Your task to perform on an android device: open app "Microsoft Outlook" (install if not already installed) Image 0: 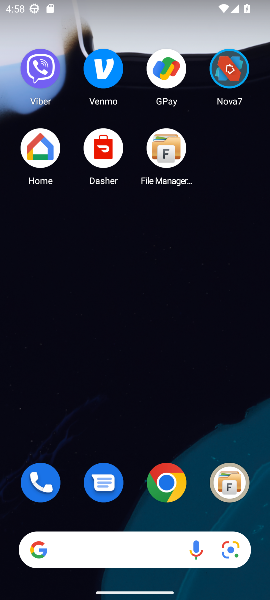
Step 0: press home button
Your task to perform on an android device: open app "Microsoft Outlook" (install if not already installed) Image 1: 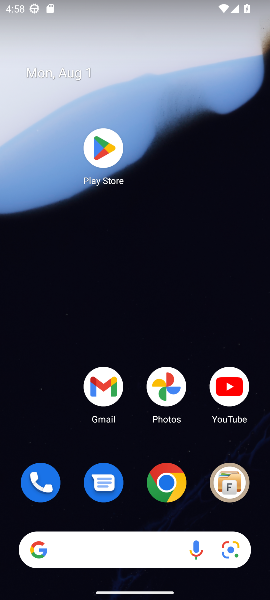
Step 1: click (109, 147)
Your task to perform on an android device: open app "Microsoft Outlook" (install if not already installed) Image 2: 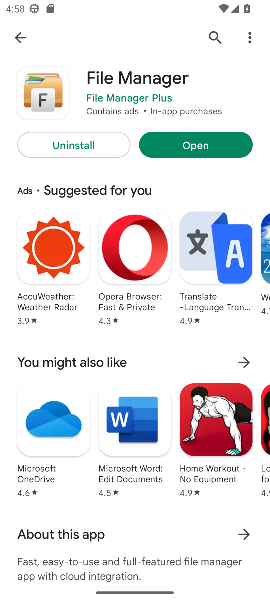
Step 2: click (208, 36)
Your task to perform on an android device: open app "Microsoft Outlook" (install if not already installed) Image 3: 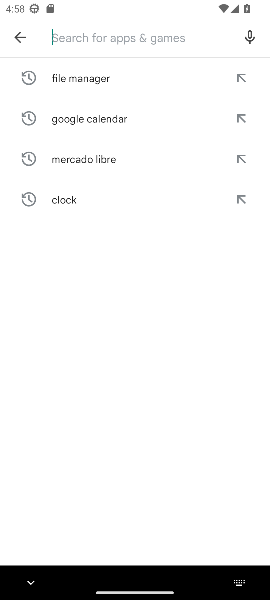
Step 3: click (102, 31)
Your task to perform on an android device: open app "Microsoft Outlook" (install if not already installed) Image 4: 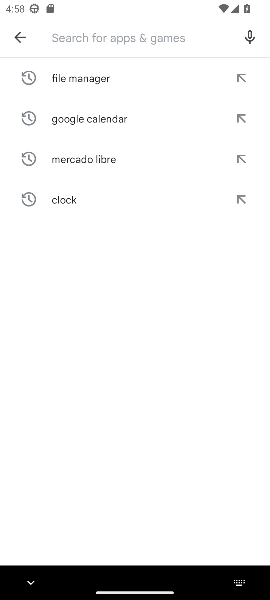
Step 4: type "Microsoft Outlook"
Your task to perform on an android device: open app "Microsoft Outlook" (install if not already installed) Image 5: 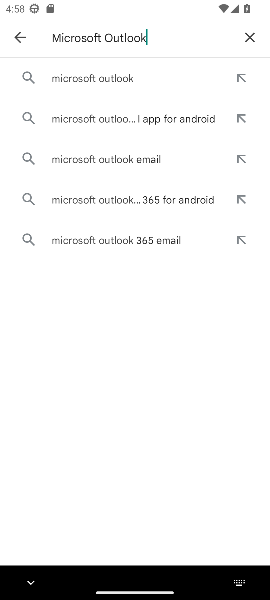
Step 5: click (99, 80)
Your task to perform on an android device: open app "Microsoft Outlook" (install if not already installed) Image 6: 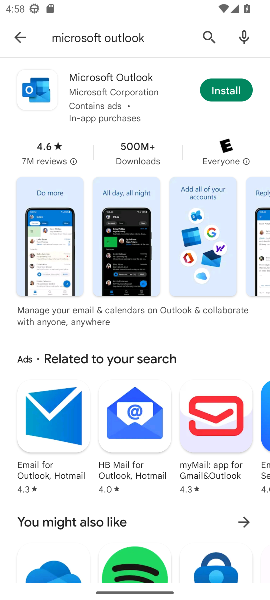
Step 6: click (231, 92)
Your task to perform on an android device: open app "Microsoft Outlook" (install if not already installed) Image 7: 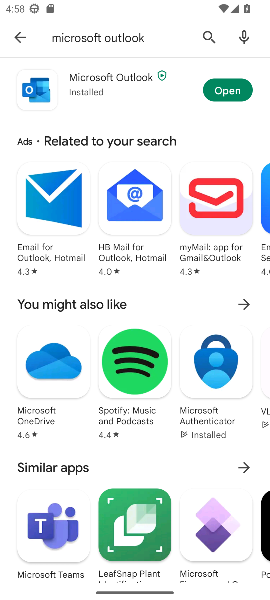
Step 7: click (232, 91)
Your task to perform on an android device: open app "Microsoft Outlook" (install if not already installed) Image 8: 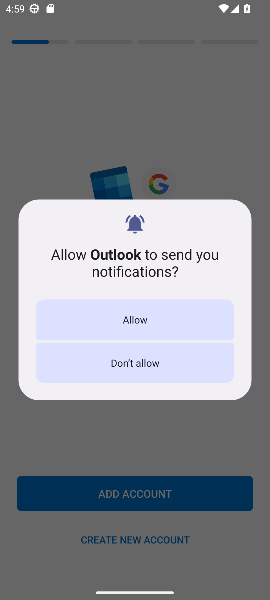
Step 8: click (142, 368)
Your task to perform on an android device: open app "Microsoft Outlook" (install if not already installed) Image 9: 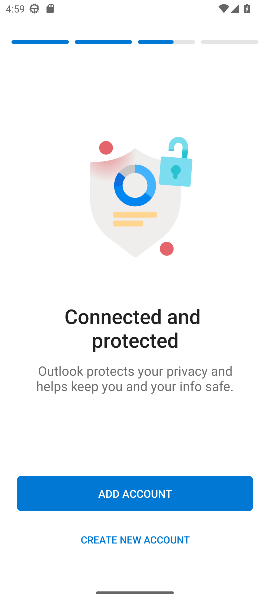
Step 9: task complete